Your task to perform on an android device: What's the weather going to be tomorrow? Image 0: 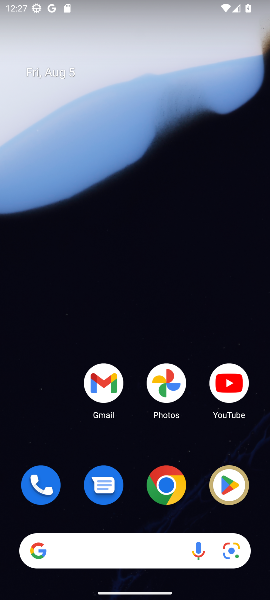
Step 0: click (164, 481)
Your task to perform on an android device: What's the weather going to be tomorrow? Image 1: 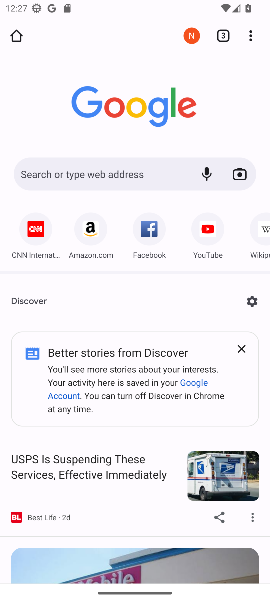
Step 1: click (68, 170)
Your task to perform on an android device: What's the weather going to be tomorrow? Image 2: 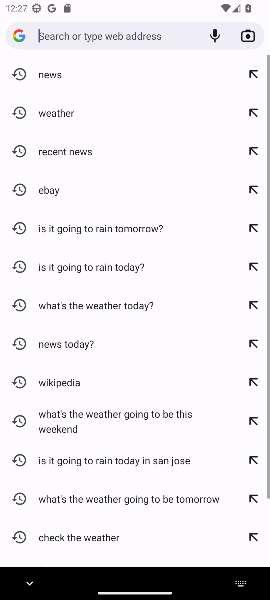
Step 2: click (58, 107)
Your task to perform on an android device: What's the weather going to be tomorrow? Image 3: 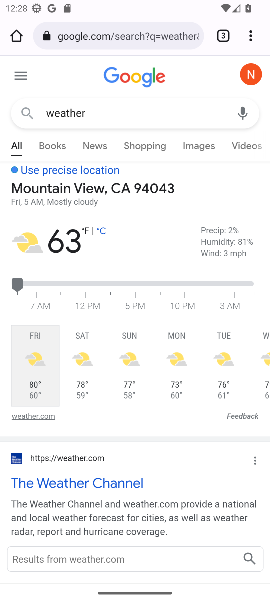
Step 3: click (89, 209)
Your task to perform on an android device: What's the weather going to be tomorrow? Image 4: 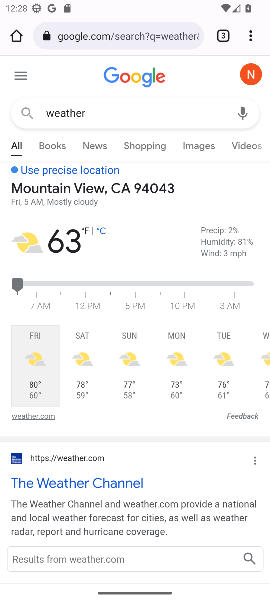
Step 4: click (62, 242)
Your task to perform on an android device: What's the weather going to be tomorrow? Image 5: 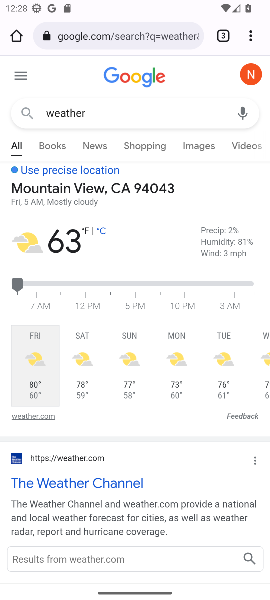
Step 5: click (52, 185)
Your task to perform on an android device: What's the weather going to be tomorrow? Image 6: 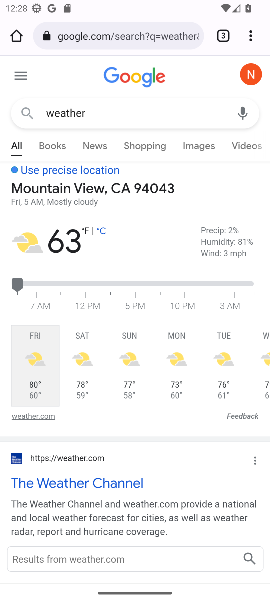
Step 6: drag from (148, 404) to (162, 228)
Your task to perform on an android device: What's the weather going to be tomorrow? Image 7: 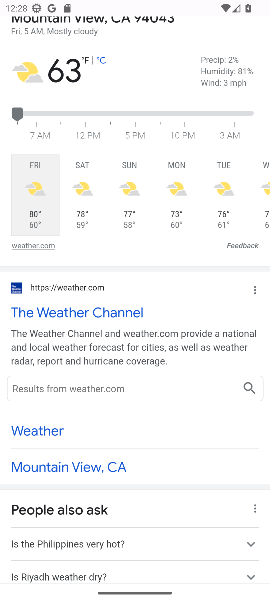
Step 7: click (85, 159)
Your task to perform on an android device: What's the weather going to be tomorrow? Image 8: 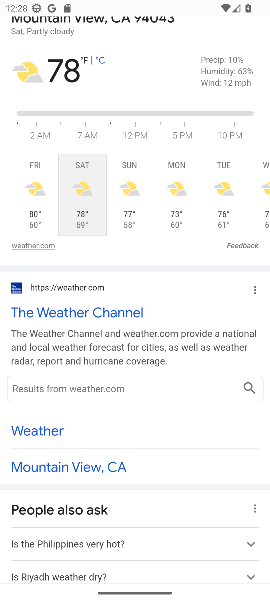
Step 8: task complete